Your task to perform on an android device: clear history in the chrome app Image 0: 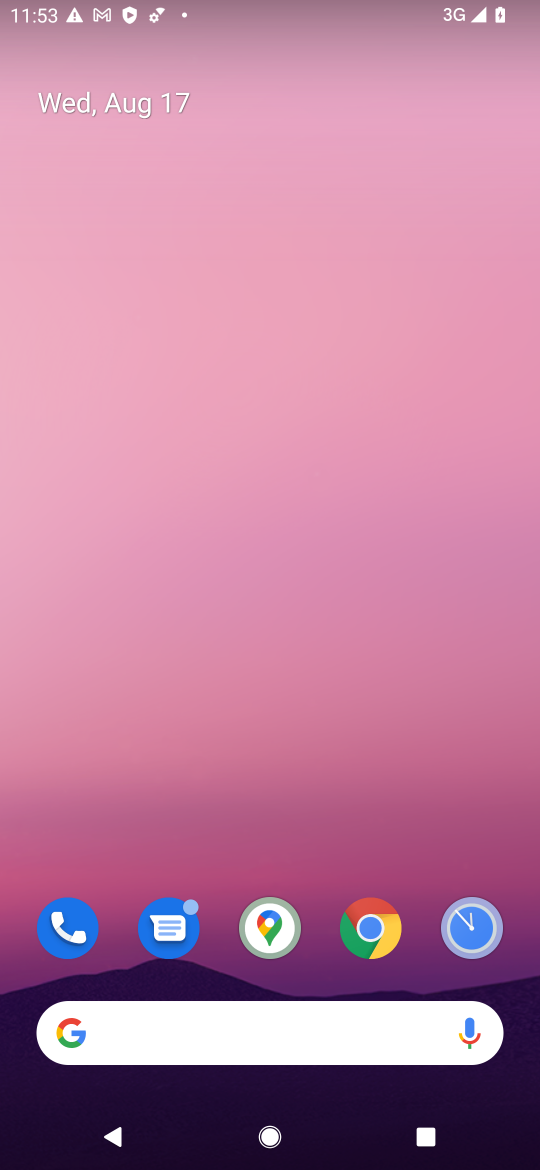
Step 0: click (357, 930)
Your task to perform on an android device: clear history in the chrome app Image 1: 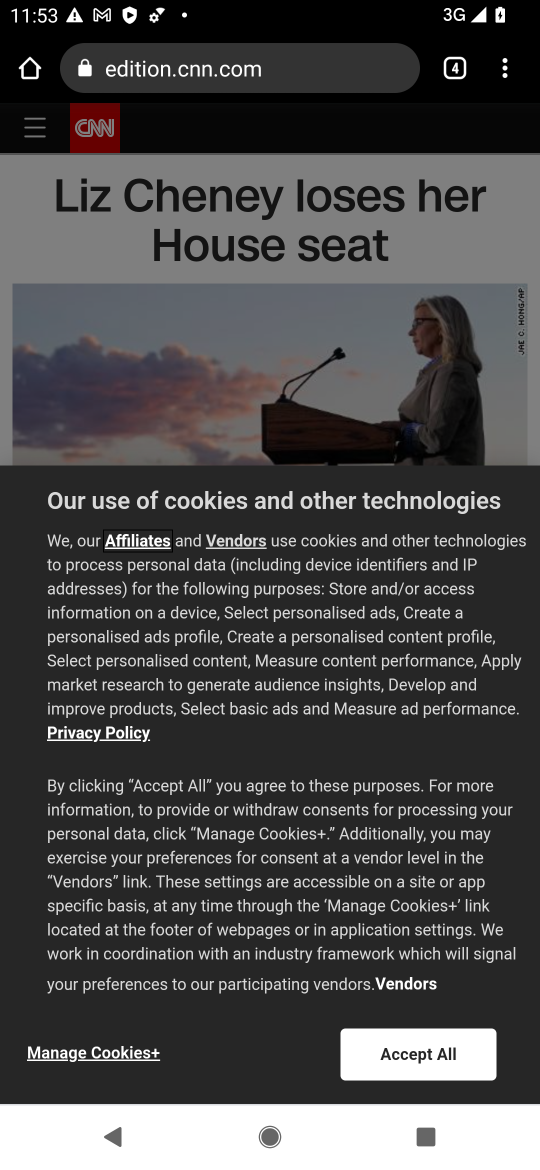
Step 1: click (504, 76)
Your task to perform on an android device: clear history in the chrome app Image 2: 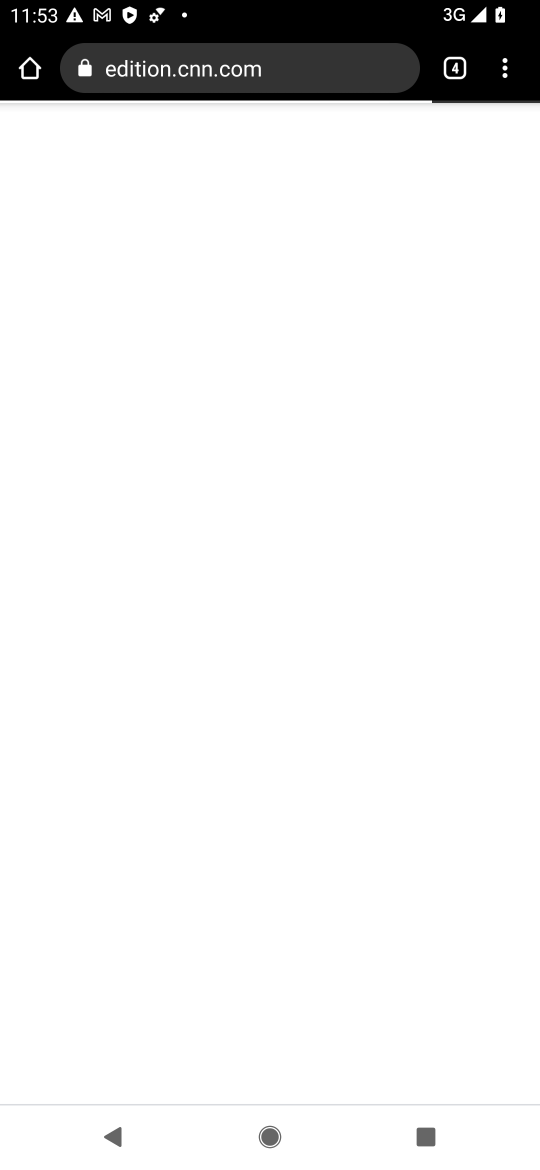
Step 2: click (504, 76)
Your task to perform on an android device: clear history in the chrome app Image 3: 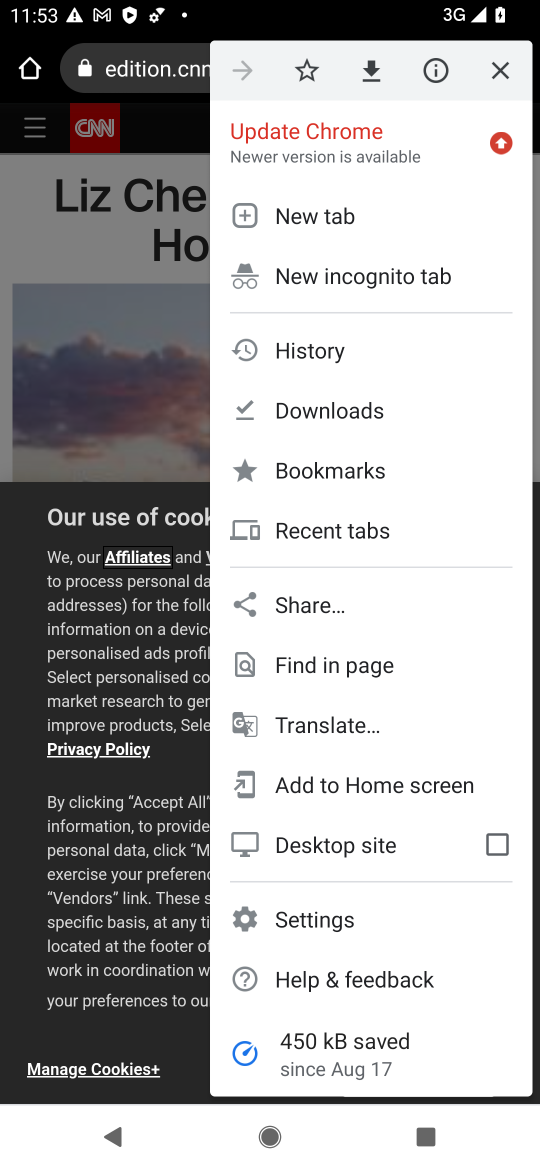
Step 3: click (302, 352)
Your task to perform on an android device: clear history in the chrome app Image 4: 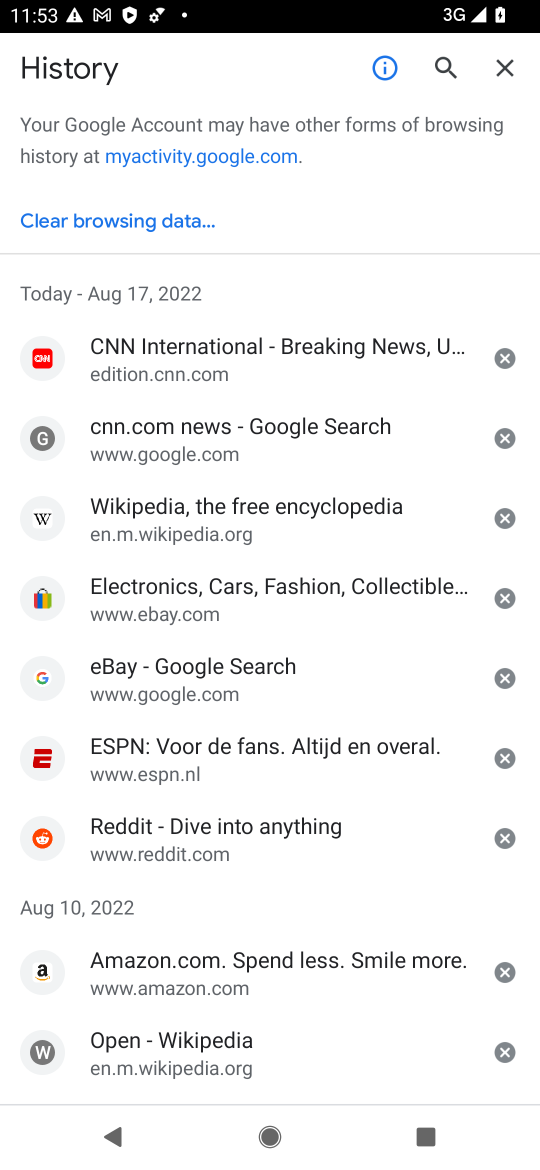
Step 4: click (190, 214)
Your task to perform on an android device: clear history in the chrome app Image 5: 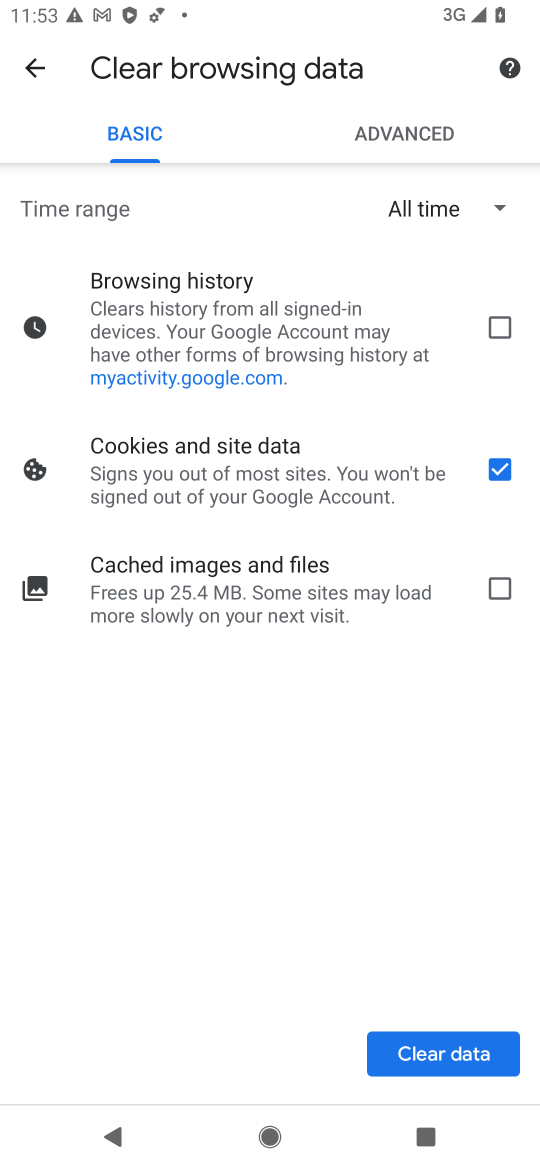
Step 5: click (493, 318)
Your task to perform on an android device: clear history in the chrome app Image 6: 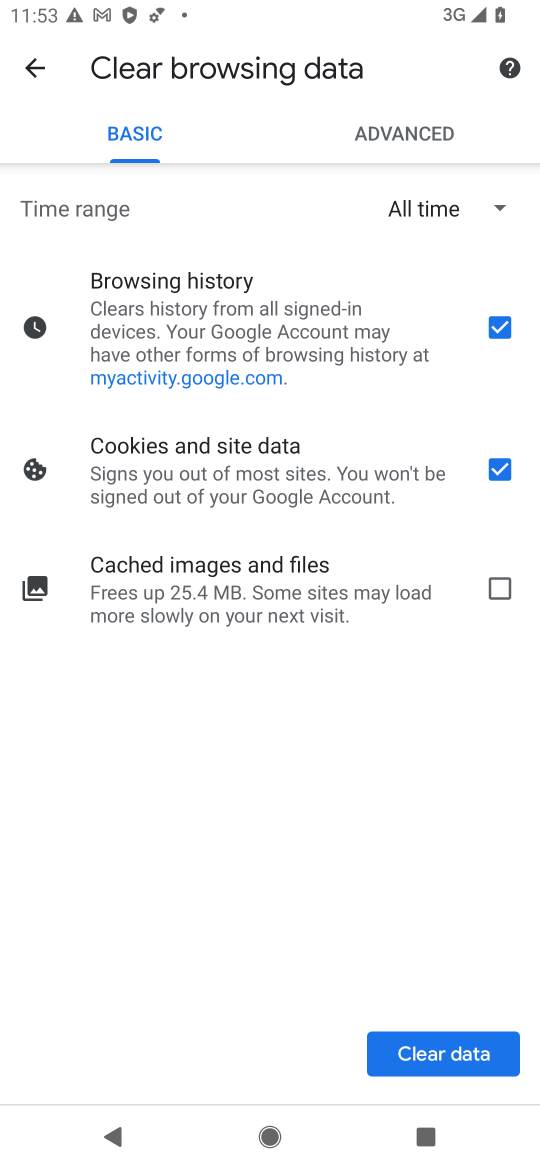
Step 6: click (513, 591)
Your task to perform on an android device: clear history in the chrome app Image 7: 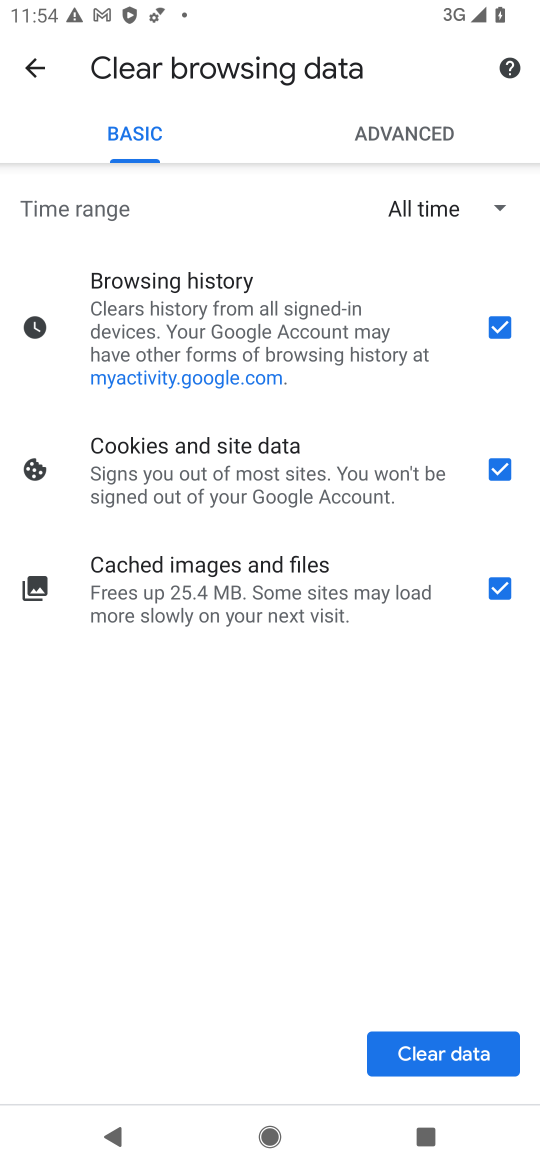
Step 7: click (470, 1047)
Your task to perform on an android device: clear history in the chrome app Image 8: 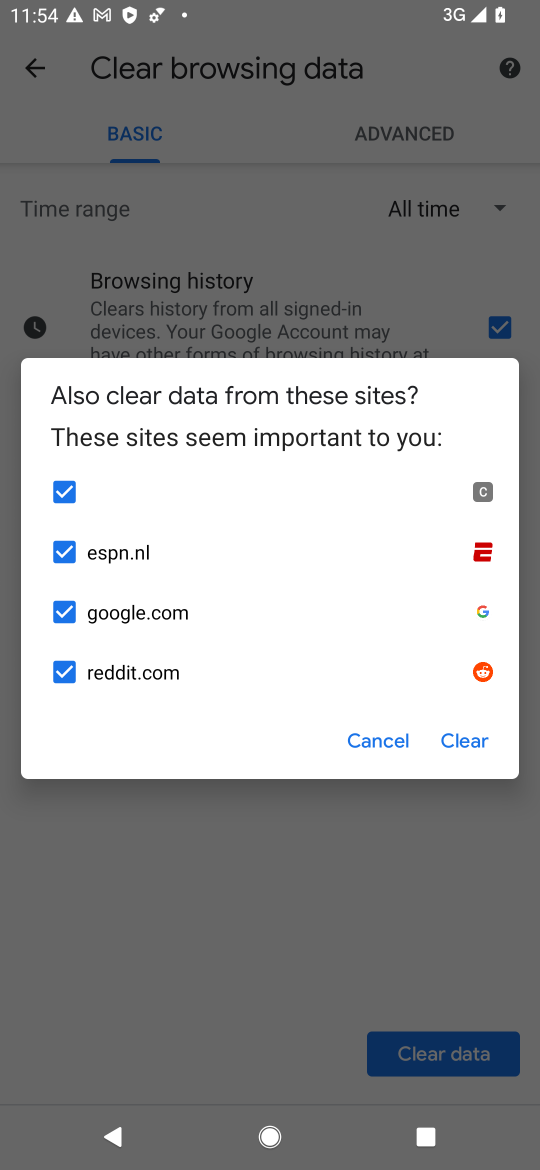
Step 8: click (438, 739)
Your task to perform on an android device: clear history in the chrome app Image 9: 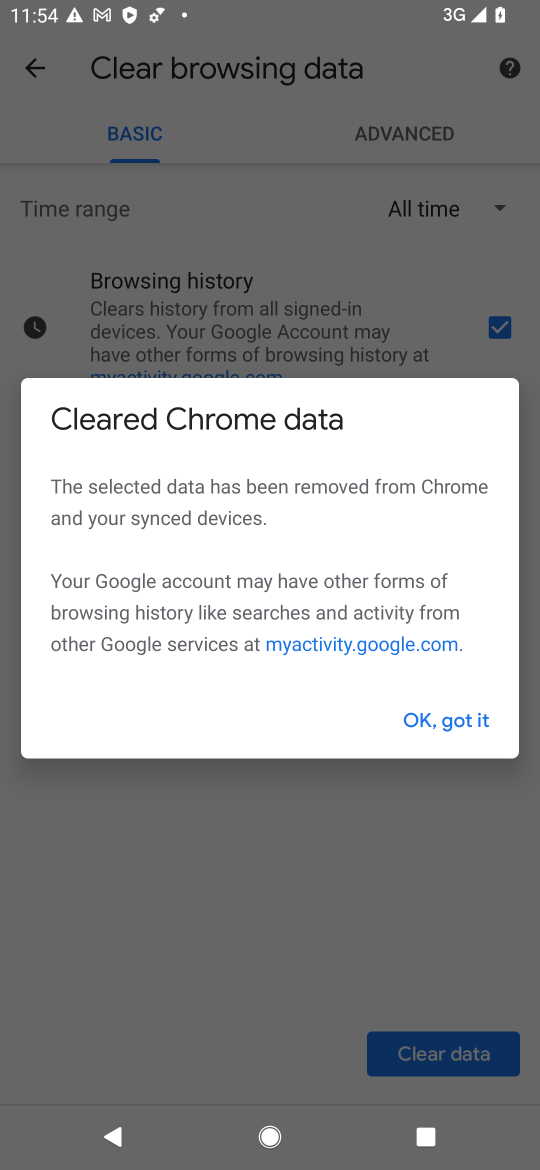
Step 9: click (440, 726)
Your task to perform on an android device: clear history in the chrome app Image 10: 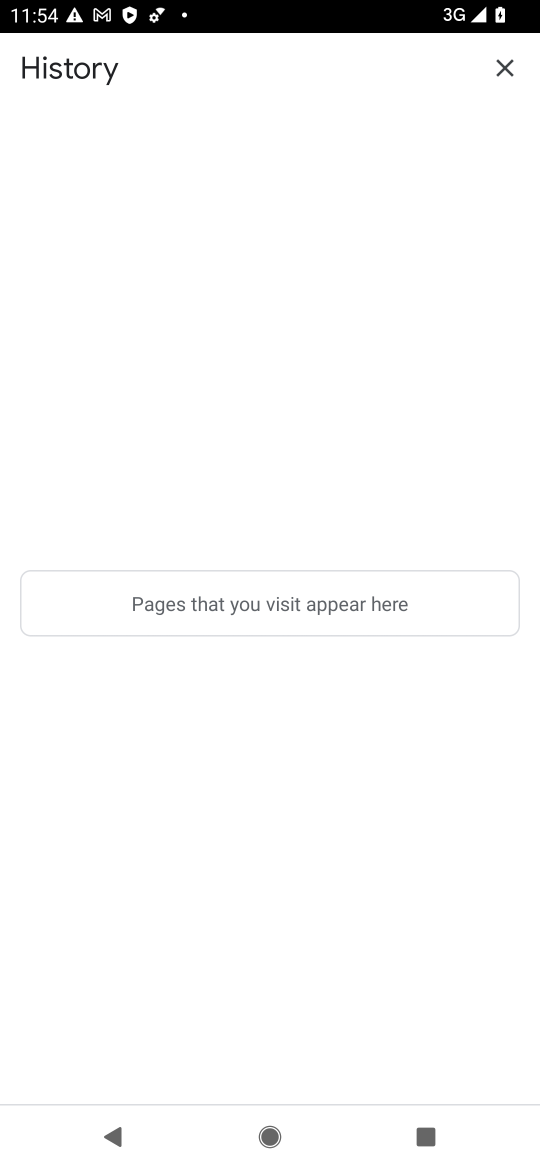
Step 10: task complete